Your task to perform on an android device: turn off notifications in google photos Image 0: 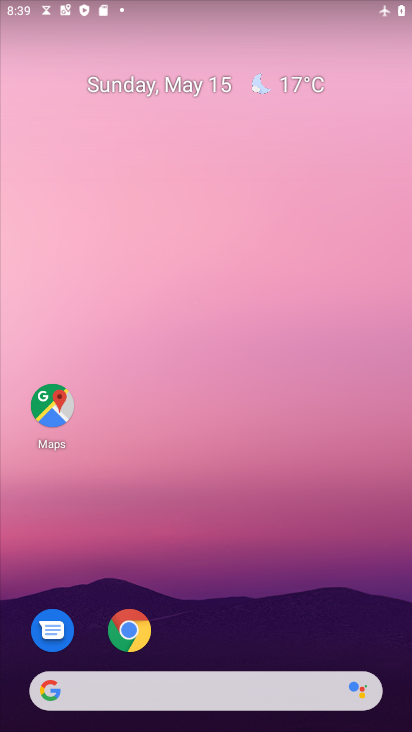
Step 0: drag from (266, 576) to (0, 403)
Your task to perform on an android device: turn off notifications in google photos Image 1: 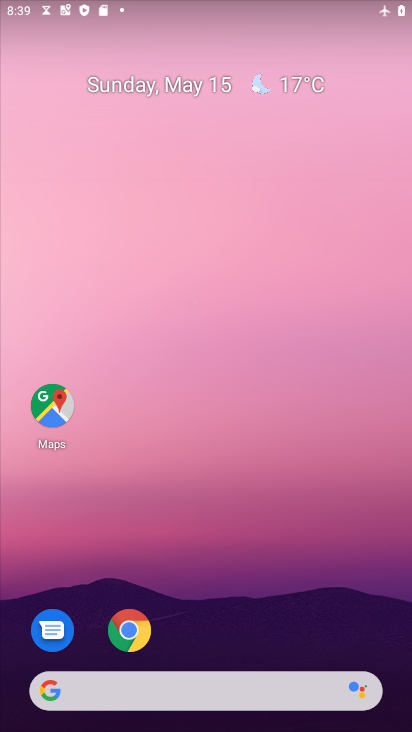
Step 1: drag from (265, 585) to (77, 287)
Your task to perform on an android device: turn off notifications in google photos Image 2: 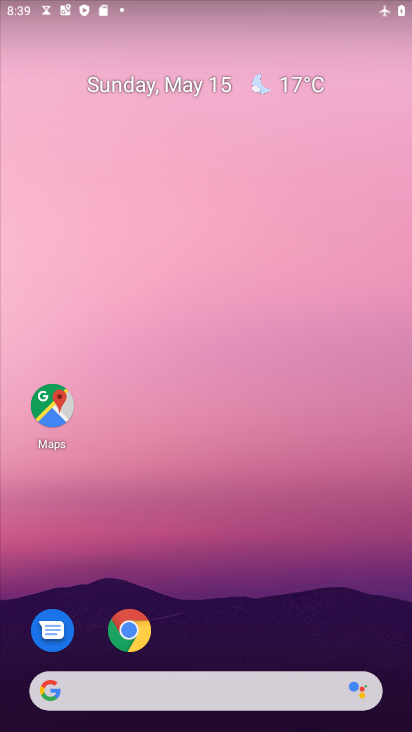
Step 2: drag from (289, 553) to (345, 0)
Your task to perform on an android device: turn off notifications in google photos Image 3: 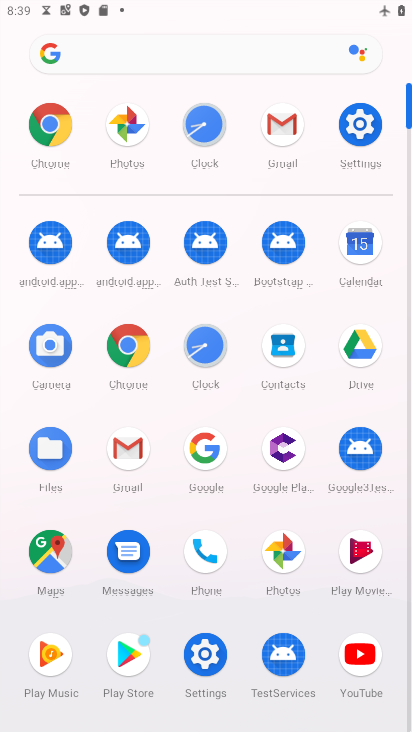
Step 3: click (135, 150)
Your task to perform on an android device: turn off notifications in google photos Image 4: 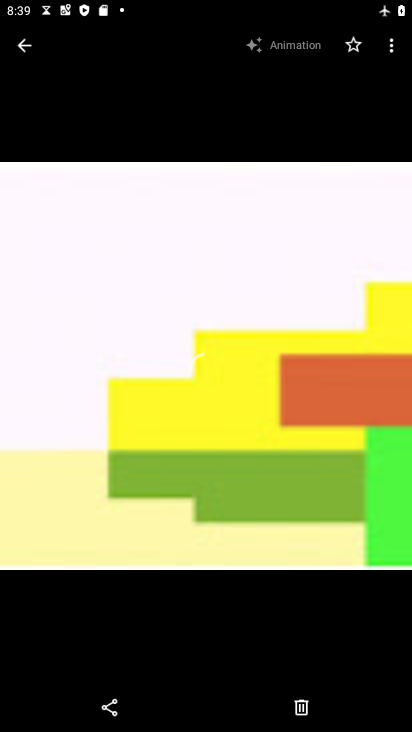
Step 4: click (31, 50)
Your task to perform on an android device: turn off notifications in google photos Image 5: 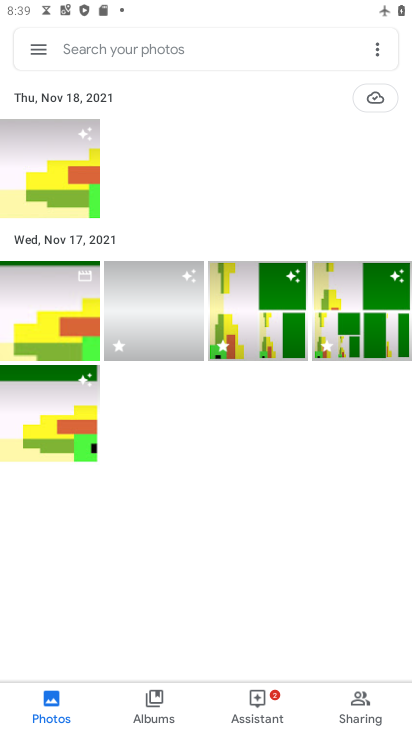
Step 5: click (34, 49)
Your task to perform on an android device: turn off notifications in google photos Image 6: 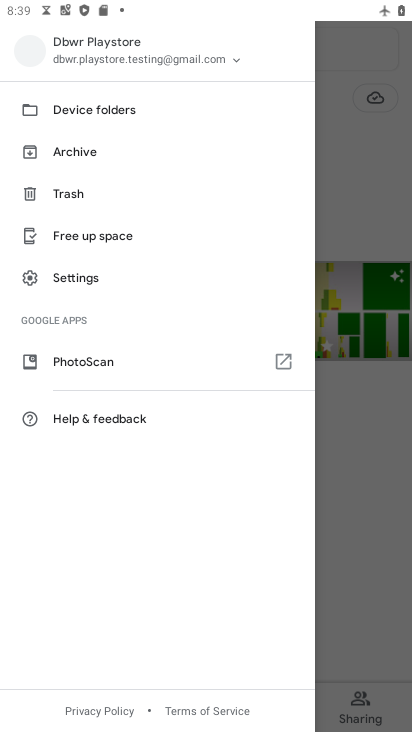
Step 6: click (78, 279)
Your task to perform on an android device: turn off notifications in google photos Image 7: 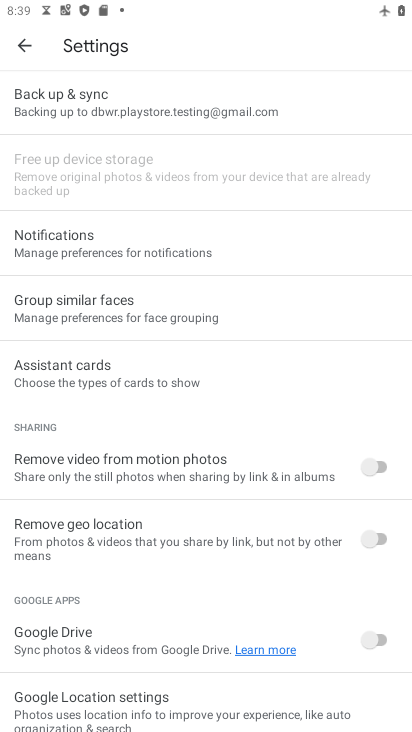
Step 7: click (63, 254)
Your task to perform on an android device: turn off notifications in google photos Image 8: 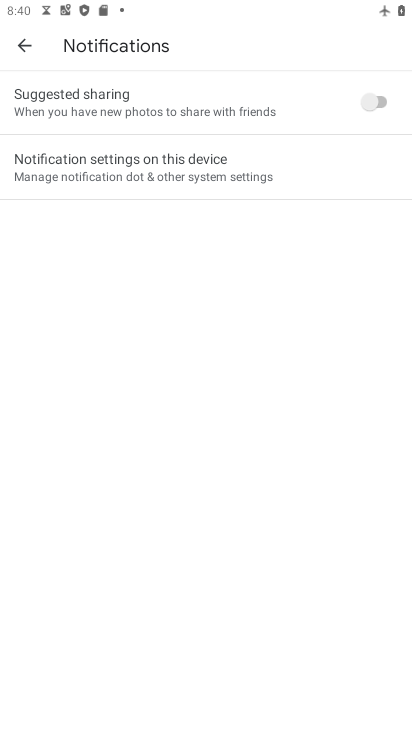
Step 8: click (151, 172)
Your task to perform on an android device: turn off notifications in google photos Image 9: 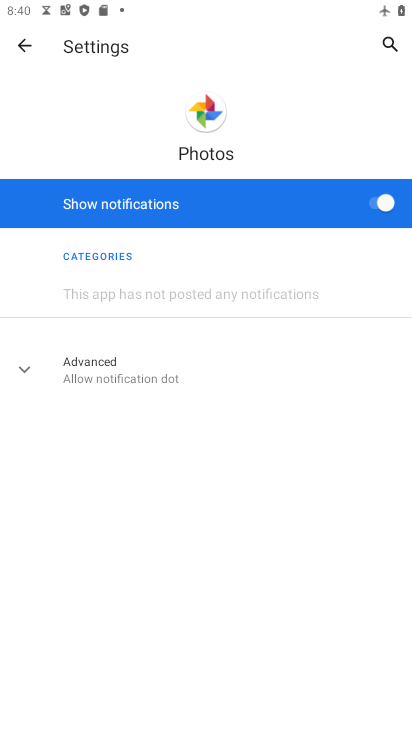
Step 9: click (374, 199)
Your task to perform on an android device: turn off notifications in google photos Image 10: 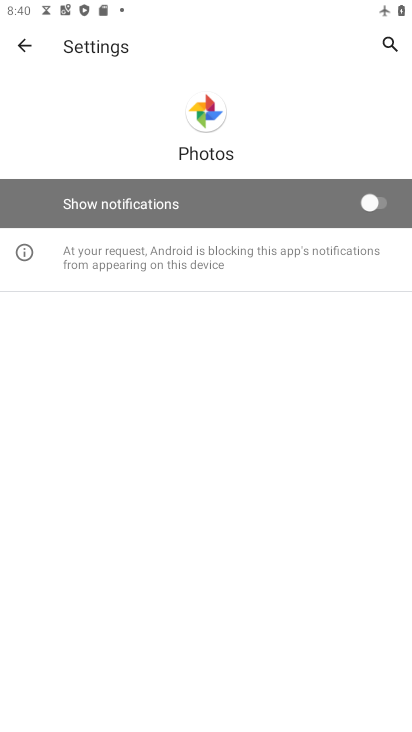
Step 10: task complete